Your task to perform on an android device: Go to internet settings Image 0: 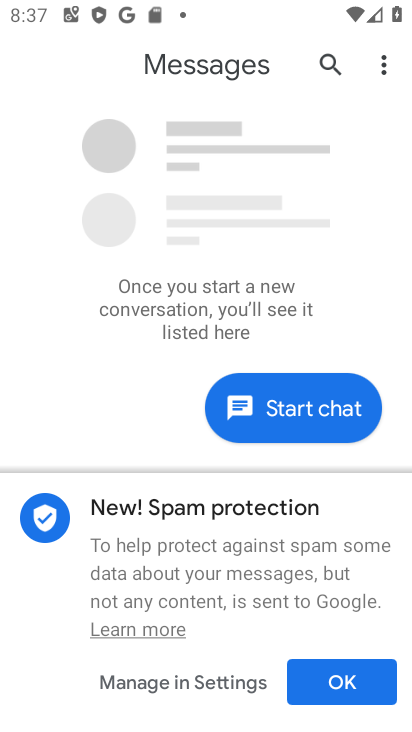
Step 0: press home button
Your task to perform on an android device: Go to internet settings Image 1: 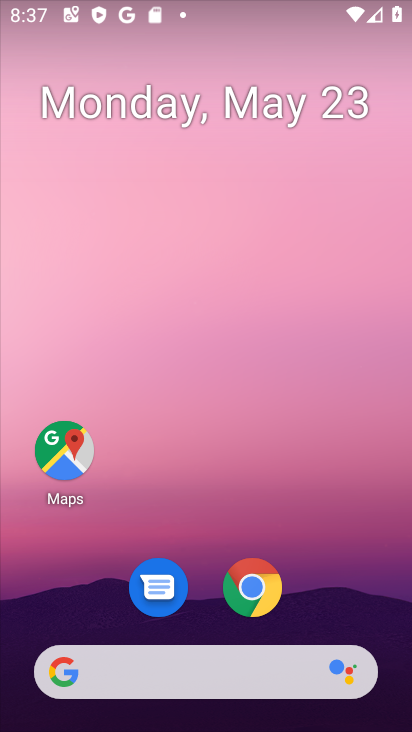
Step 1: drag from (242, 542) to (290, 16)
Your task to perform on an android device: Go to internet settings Image 2: 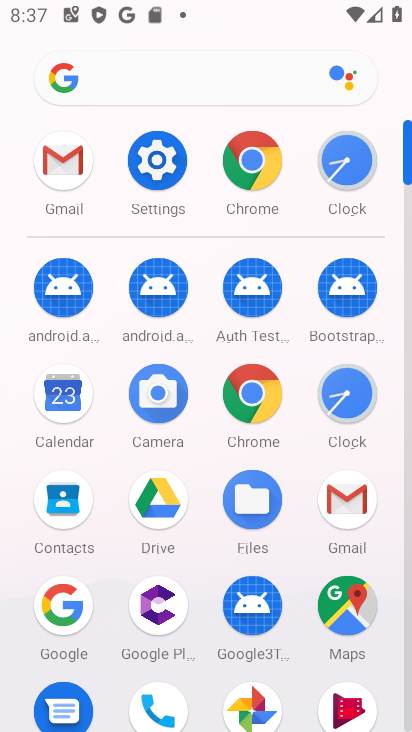
Step 2: click (157, 150)
Your task to perform on an android device: Go to internet settings Image 3: 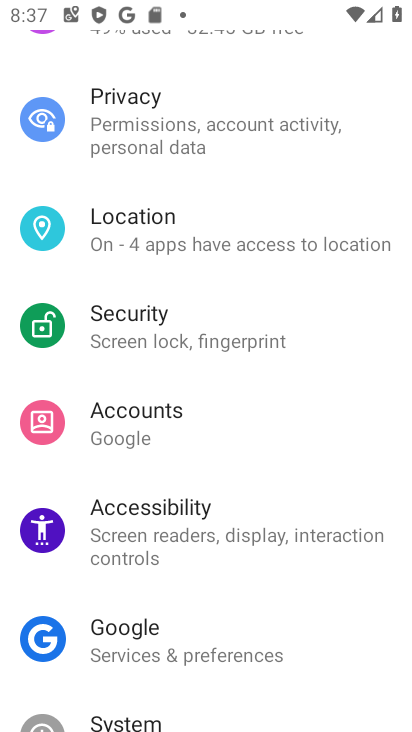
Step 3: drag from (213, 160) to (181, 660)
Your task to perform on an android device: Go to internet settings Image 4: 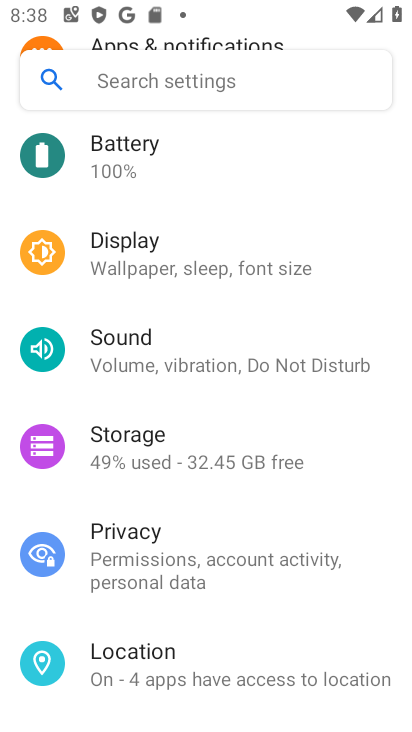
Step 4: drag from (259, 154) to (194, 715)
Your task to perform on an android device: Go to internet settings Image 5: 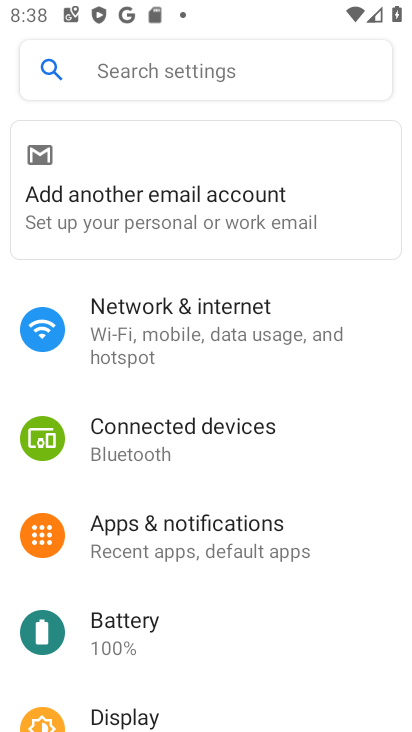
Step 5: click (173, 303)
Your task to perform on an android device: Go to internet settings Image 6: 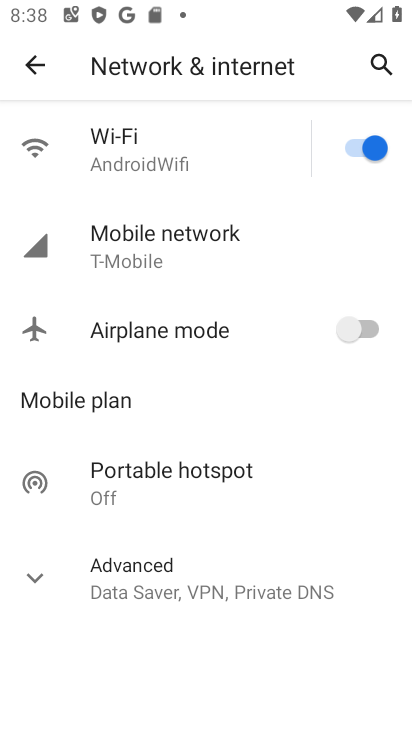
Step 6: task complete